Your task to perform on an android device: set the timer Image 0: 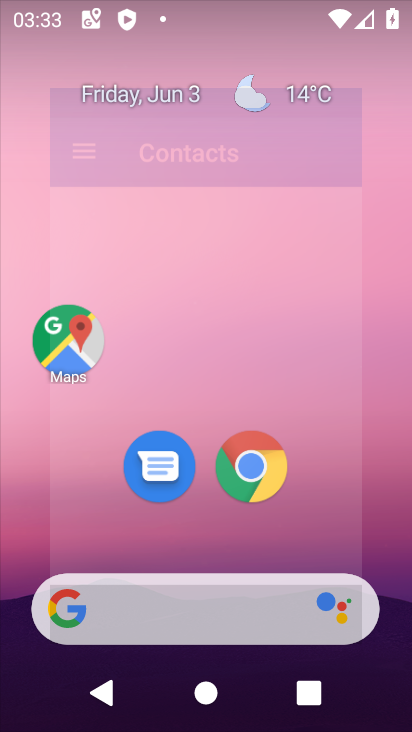
Step 0: press home button
Your task to perform on an android device: set the timer Image 1: 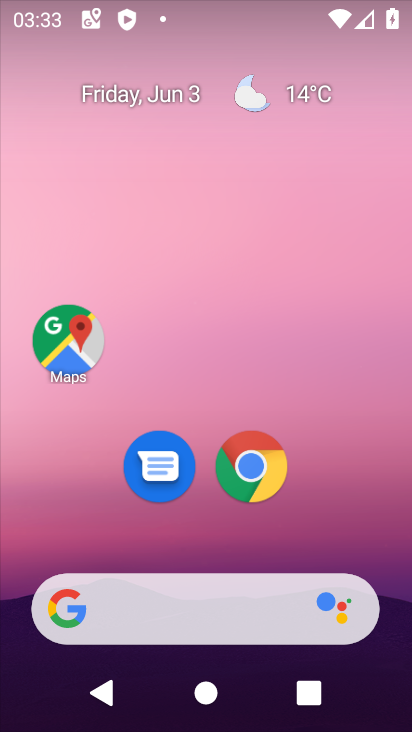
Step 1: drag from (206, 533) to (247, 38)
Your task to perform on an android device: set the timer Image 2: 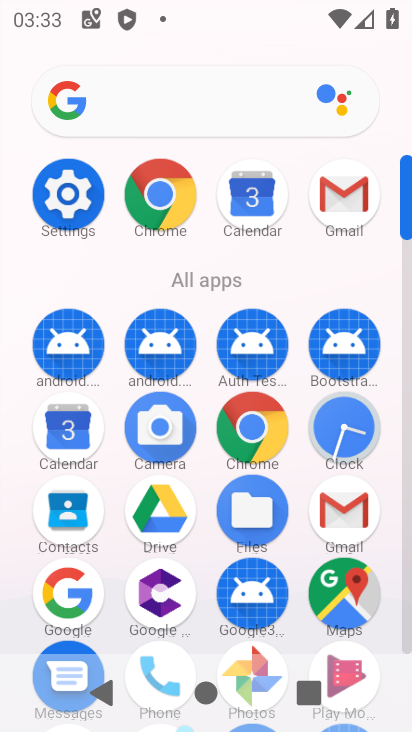
Step 2: click (342, 419)
Your task to perform on an android device: set the timer Image 3: 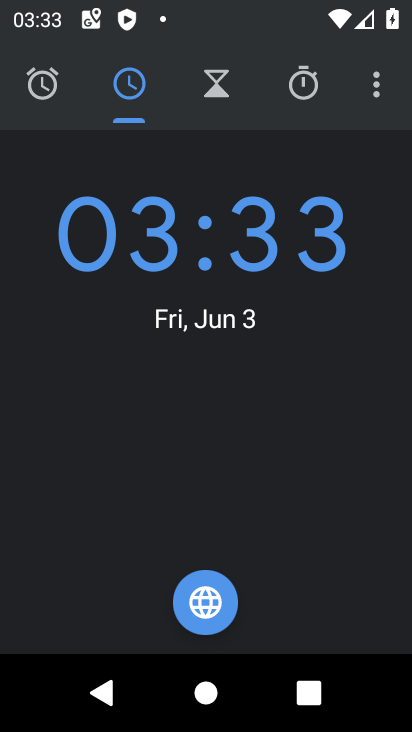
Step 3: click (216, 79)
Your task to perform on an android device: set the timer Image 4: 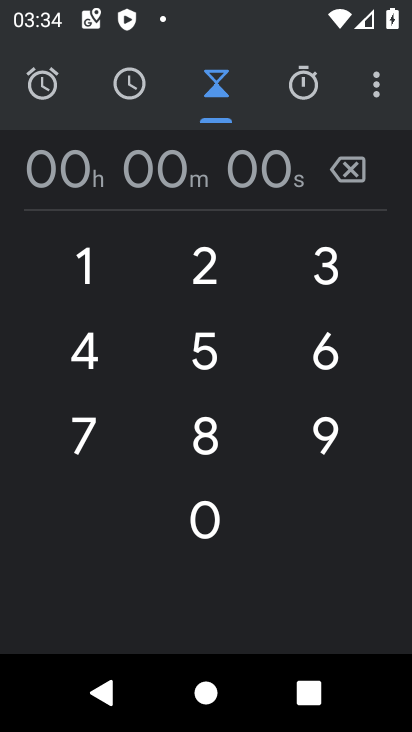
Step 4: click (313, 269)
Your task to perform on an android device: set the timer Image 5: 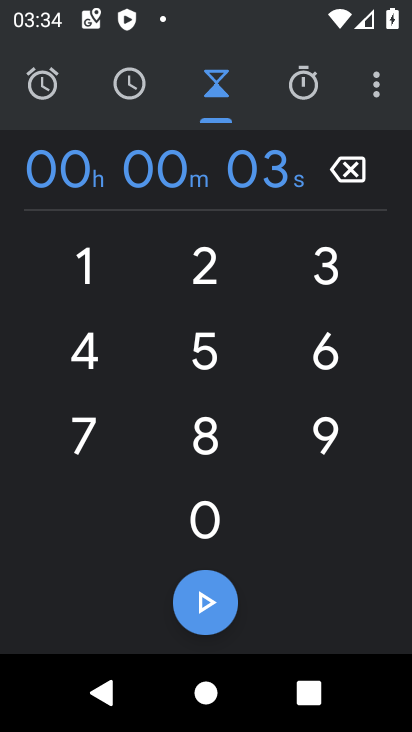
Step 5: click (209, 505)
Your task to perform on an android device: set the timer Image 6: 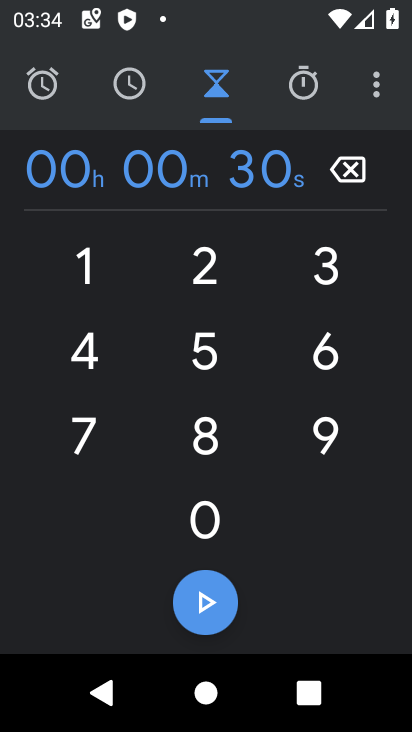
Step 6: click (209, 505)
Your task to perform on an android device: set the timer Image 7: 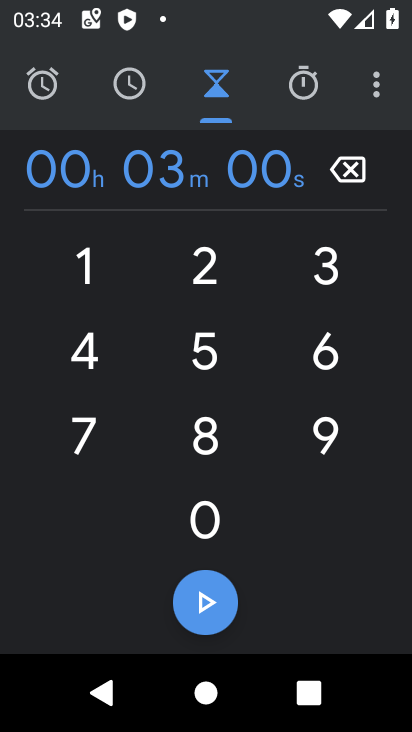
Step 7: click (209, 505)
Your task to perform on an android device: set the timer Image 8: 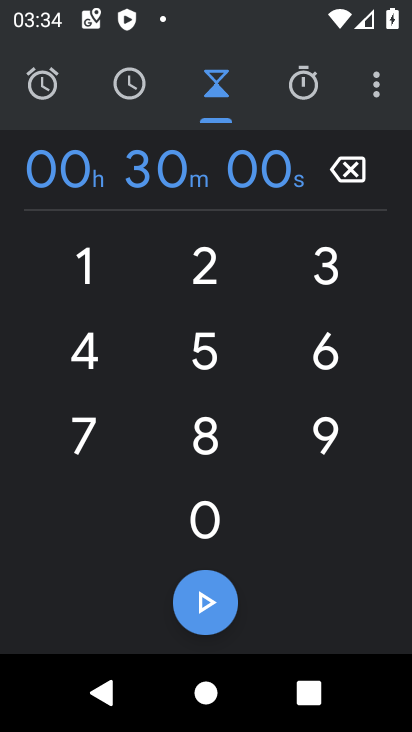
Step 8: click (201, 593)
Your task to perform on an android device: set the timer Image 9: 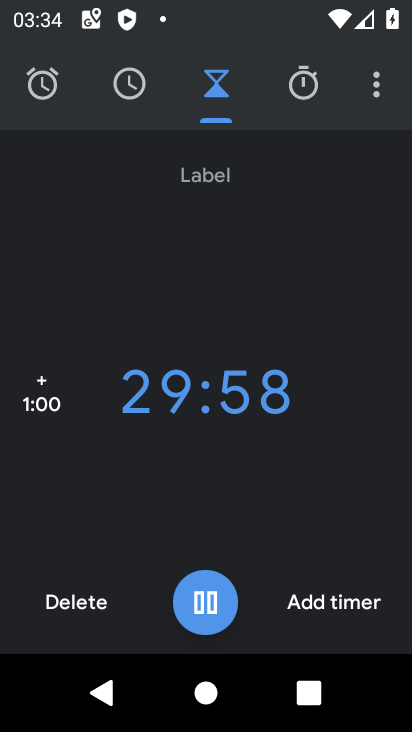
Step 9: task complete